Your task to perform on an android device: Open Yahoo.com Image 0: 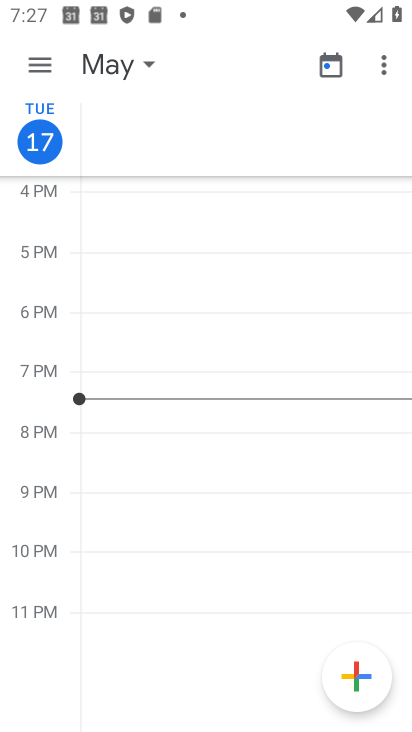
Step 0: press home button
Your task to perform on an android device: Open Yahoo.com Image 1: 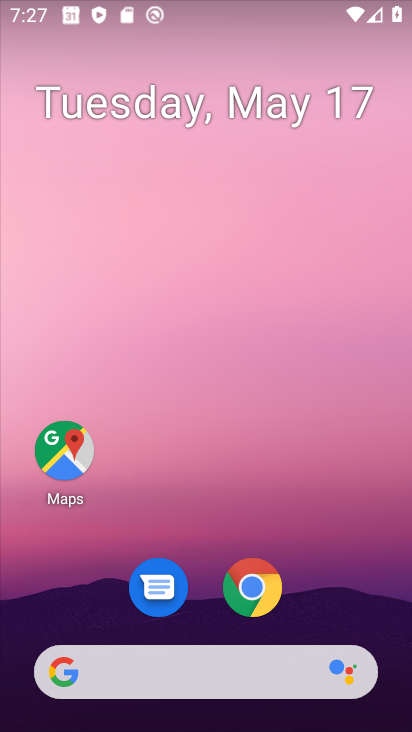
Step 1: drag from (235, 696) to (351, 76)
Your task to perform on an android device: Open Yahoo.com Image 2: 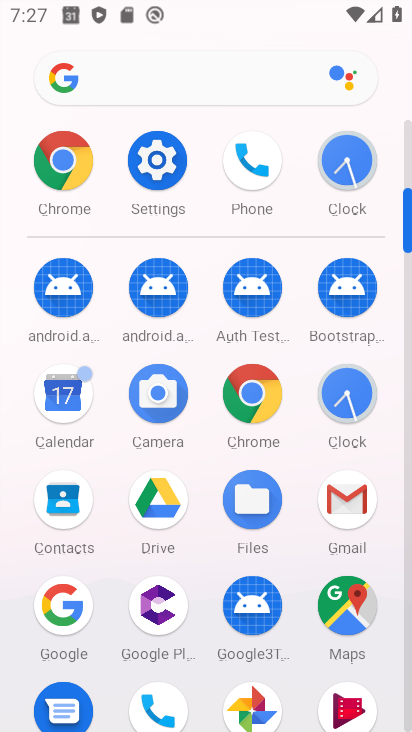
Step 2: click (63, 166)
Your task to perform on an android device: Open Yahoo.com Image 3: 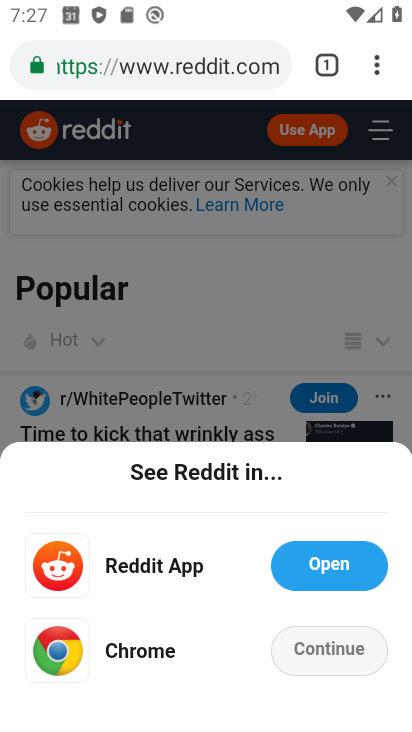
Step 3: click (151, 80)
Your task to perform on an android device: Open Yahoo.com Image 4: 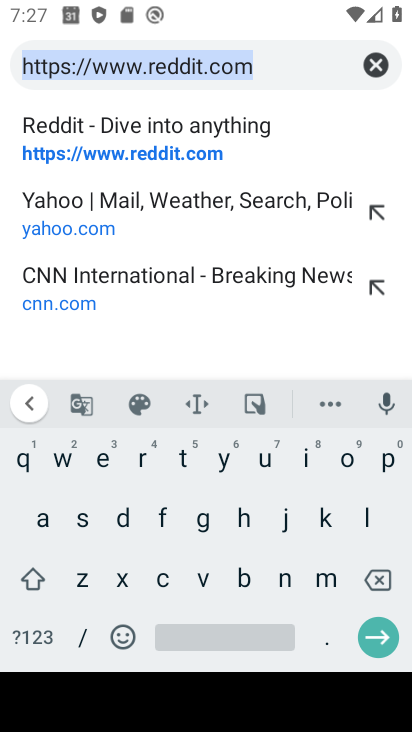
Step 4: click (371, 67)
Your task to perform on an android device: Open Yahoo.com Image 5: 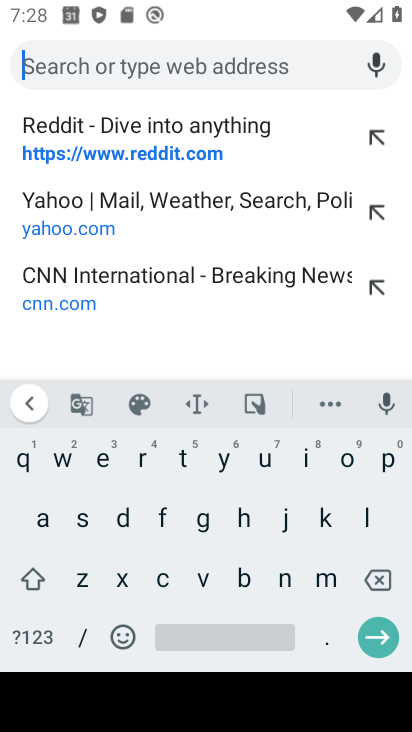
Step 5: click (218, 469)
Your task to perform on an android device: Open Yahoo.com Image 6: 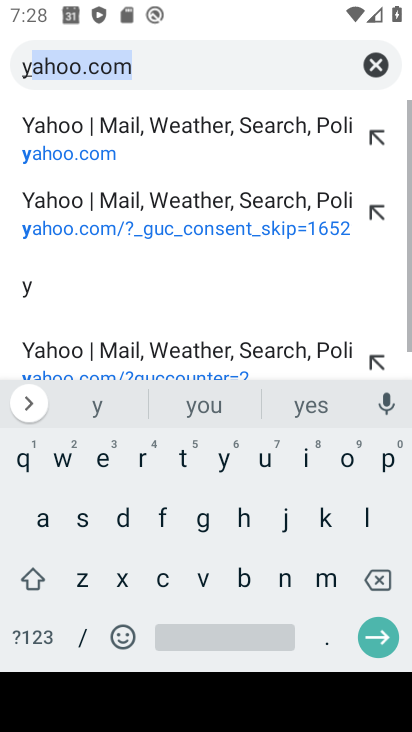
Step 6: click (214, 69)
Your task to perform on an android device: Open Yahoo.com Image 7: 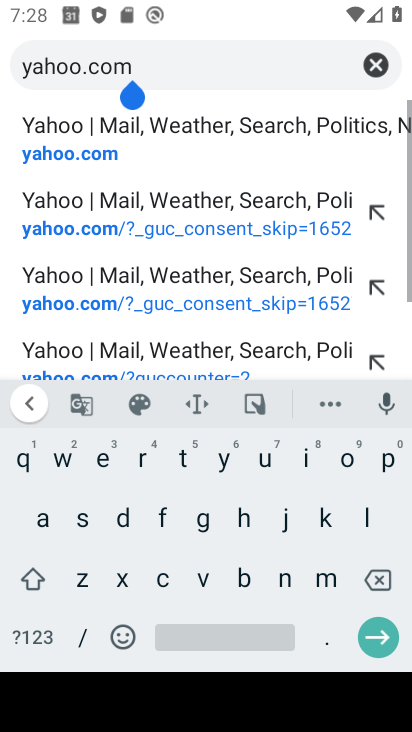
Step 7: click (372, 643)
Your task to perform on an android device: Open Yahoo.com Image 8: 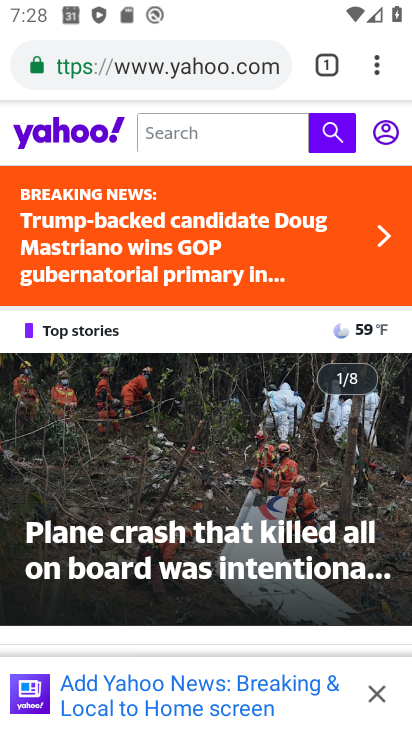
Step 8: task complete